Your task to perform on an android device: change notifications settings Image 0: 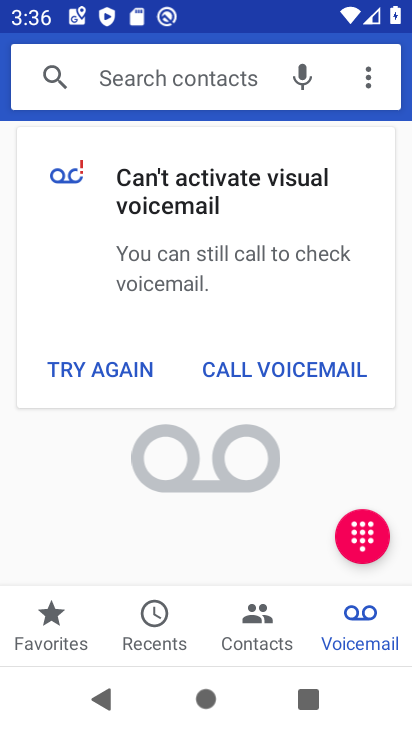
Step 0: press home button
Your task to perform on an android device: change notifications settings Image 1: 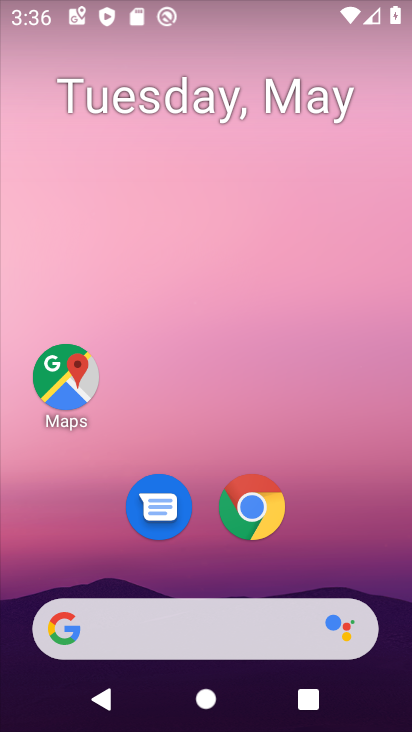
Step 1: drag from (205, 568) to (244, 95)
Your task to perform on an android device: change notifications settings Image 2: 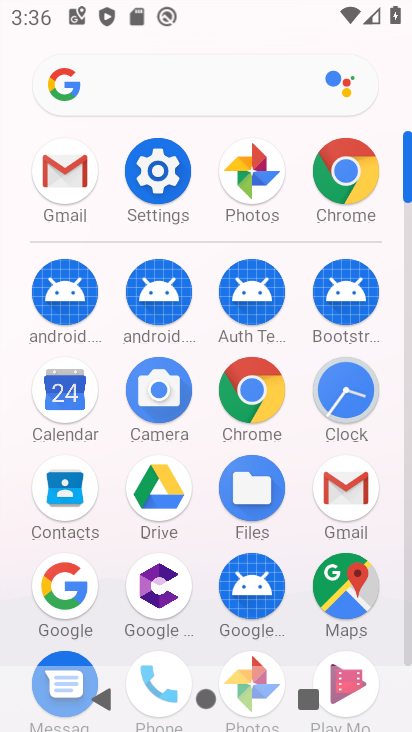
Step 2: click (159, 179)
Your task to perform on an android device: change notifications settings Image 3: 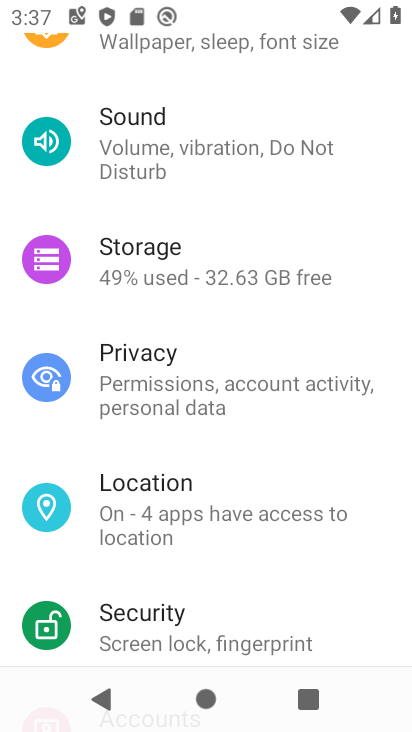
Step 3: drag from (198, 298) to (214, 552)
Your task to perform on an android device: change notifications settings Image 4: 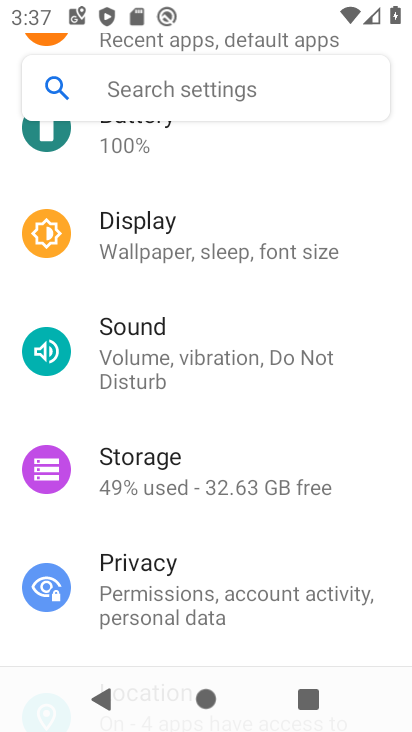
Step 4: drag from (223, 327) to (229, 604)
Your task to perform on an android device: change notifications settings Image 5: 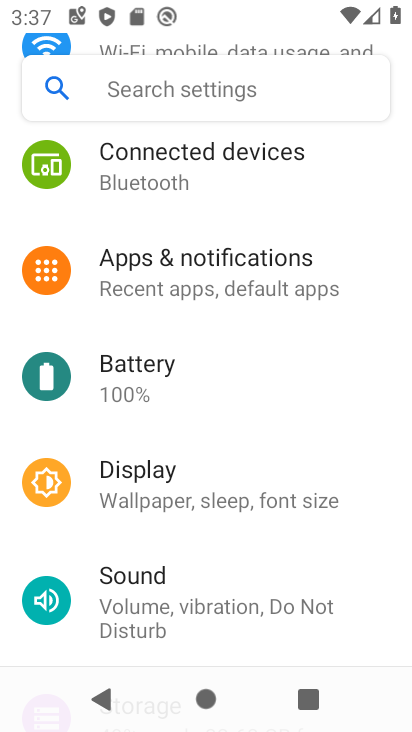
Step 5: click (223, 253)
Your task to perform on an android device: change notifications settings Image 6: 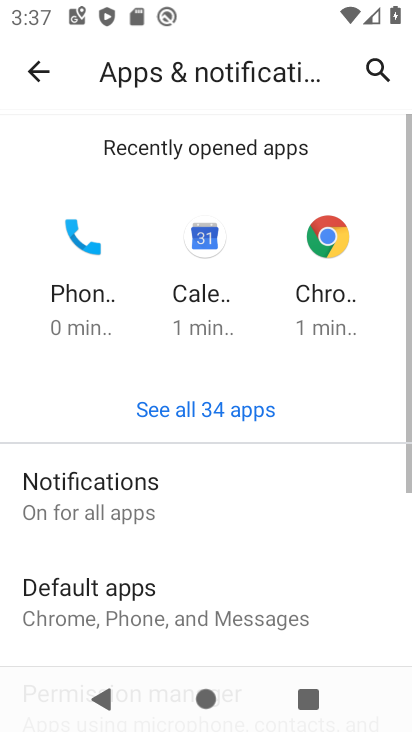
Step 6: click (173, 502)
Your task to perform on an android device: change notifications settings Image 7: 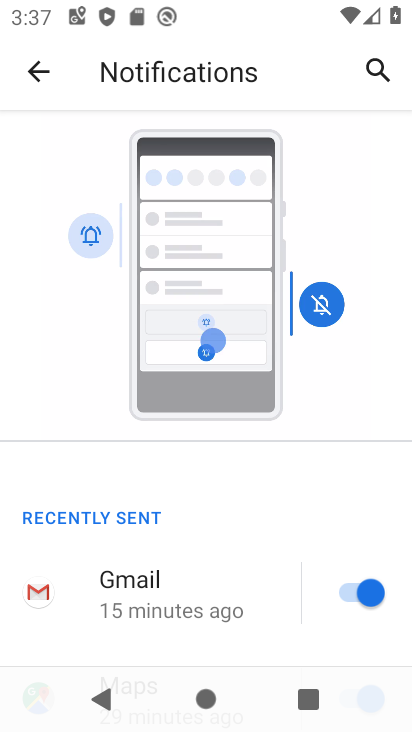
Step 7: drag from (172, 529) to (206, 223)
Your task to perform on an android device: change notifications settings Image 8: 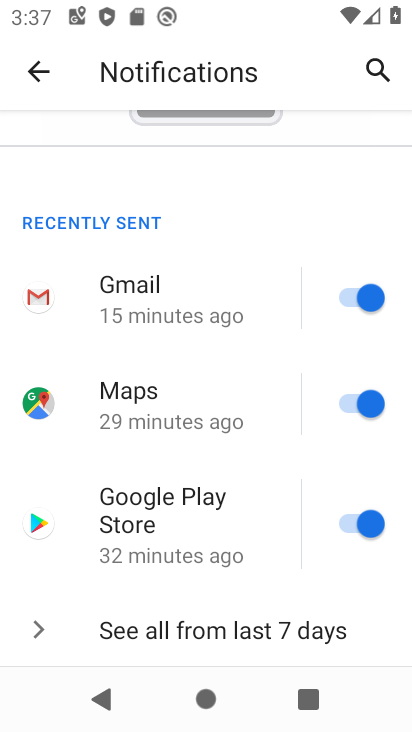
Step 8: drag from (192, 569) to (193, 422)
Your task to perform on an android device: change notifications settings Image 9: 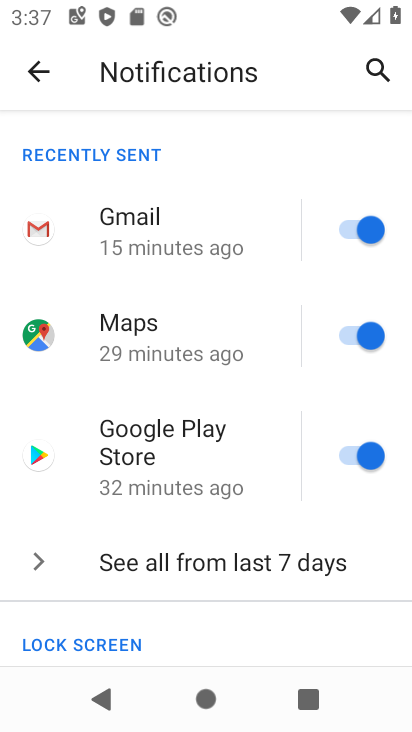
Step 9: click (167, 563)
Your task to perform on an android device: change notifications settings Image 10: 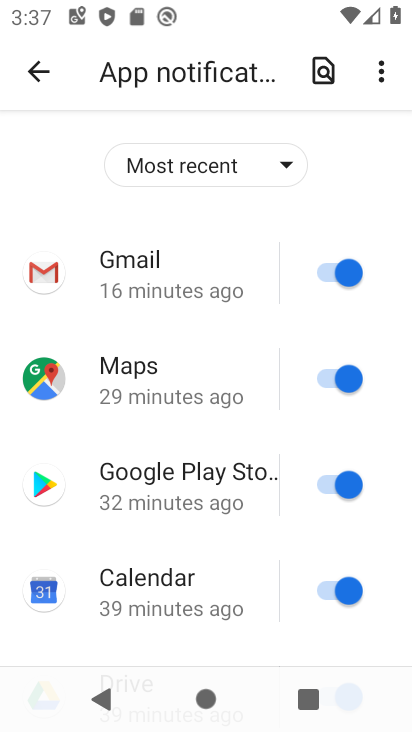
Step 10: click (337, 260)
Your task to perform on an android device: change notifications settings Image 11: 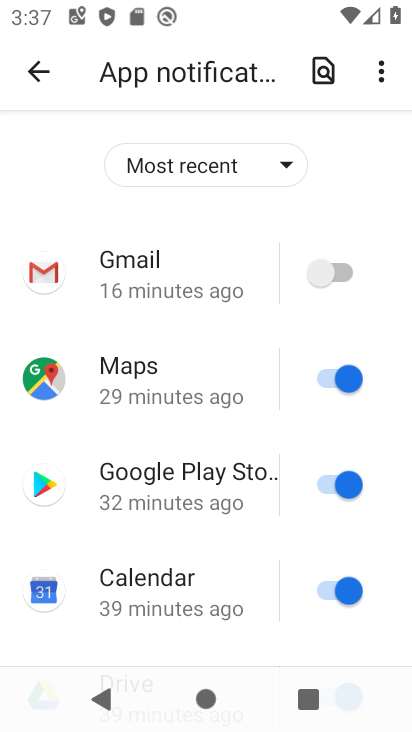
Step 11: click (338, 379)
Your task to perform on an android device: change notifications settings Image 12: 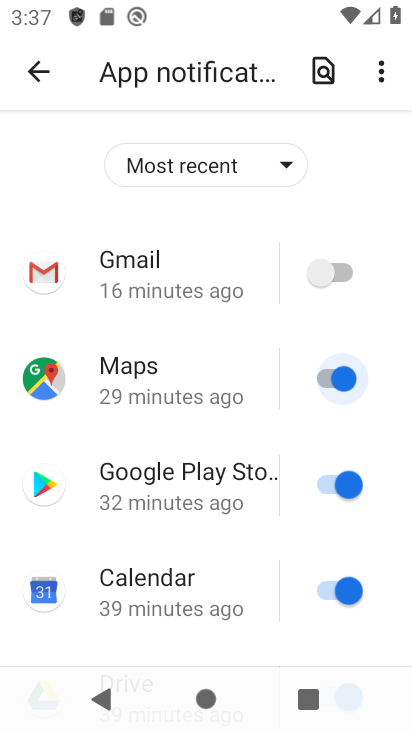
Step 12: click (324, 467)
Your task to perform on an android device: change notifications settings Image 13: 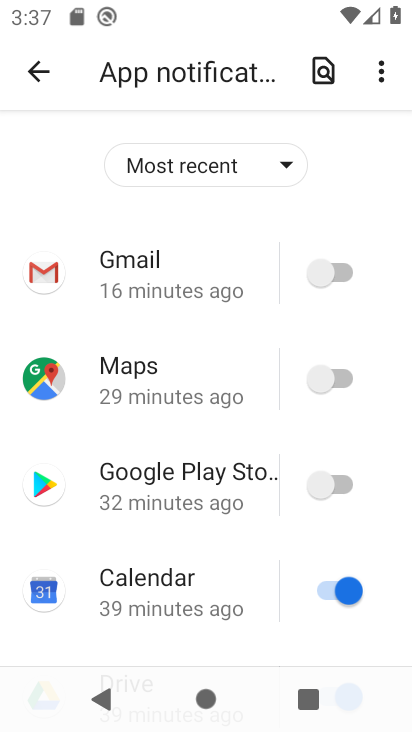
Step 13: click (318, 574)
Your task to perform on an android device: change notifications settings Image 14: 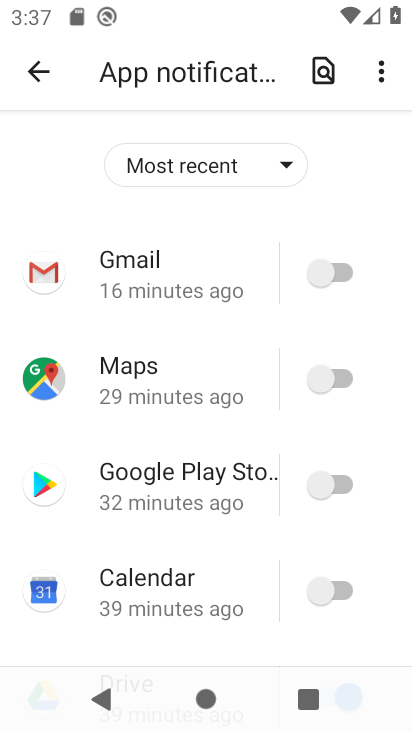
Step 14: drag from (150, 627) to (186, 144)
Your task to perform on an android device: change notifications settings Image 15: 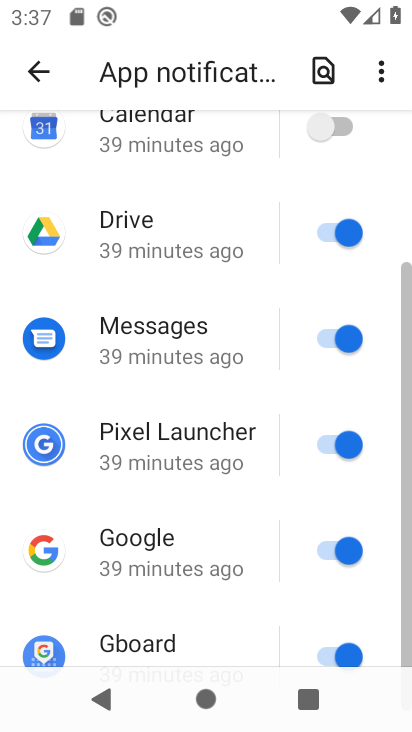
Step 15: click (344, 238)
Your task to perform on an android device: change notifications settings Image 16: 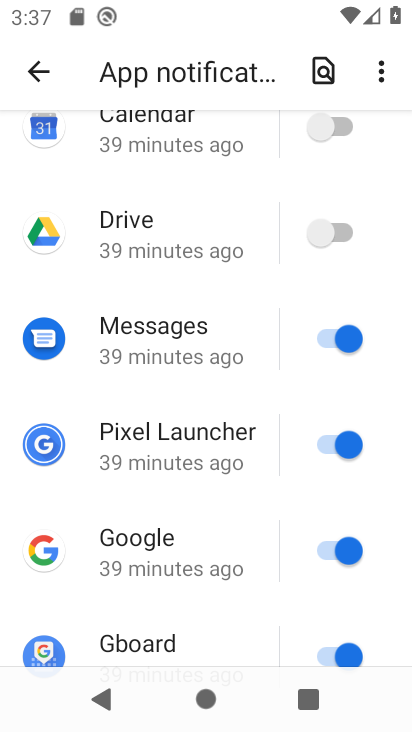
Step 16: click (357, 340)
Your task to perform on an android device: change notifications settings Image 17: 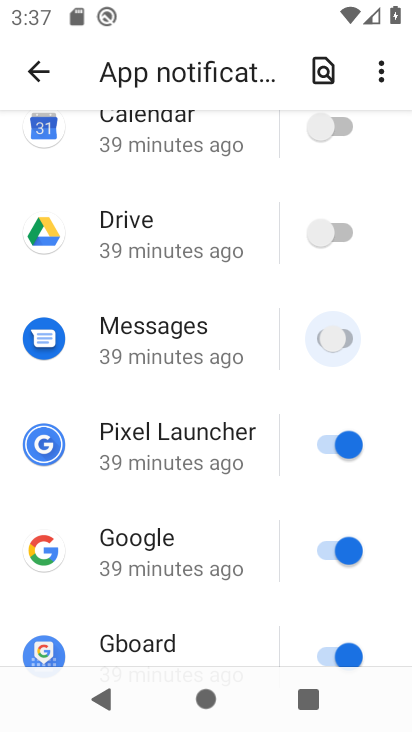
Step 17: click (323, 442)
Your task to perform on an android device: change notifications settings Image 18: 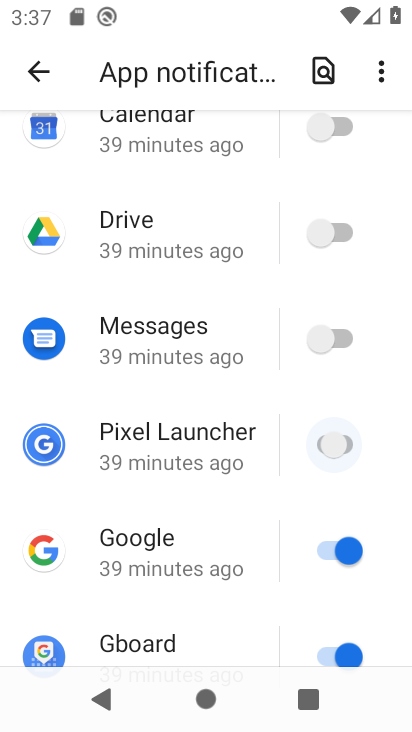
Step 18: click (333, 553)
Your task to perform on an android device: change notifications settings Image 19: 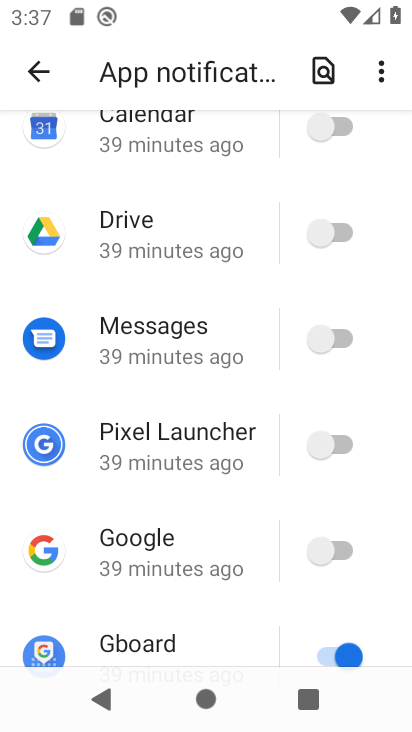
Step 19: click (323, 648)
Your task to perform on an android device: change notifications settings Image 20: 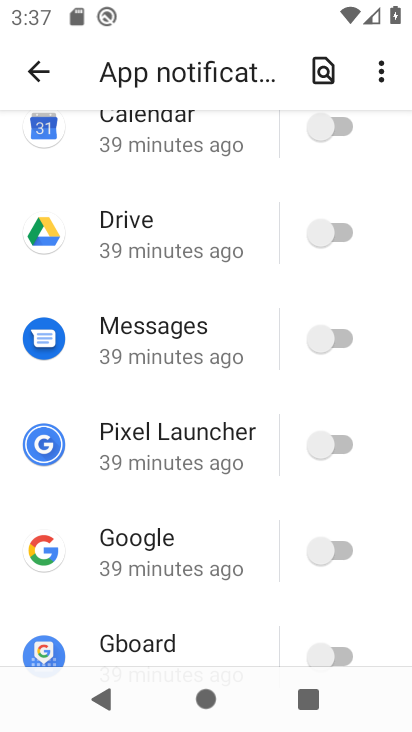
Step 20: drag from (196, 599) to (202, 189)
Your task to perform on an android device: change notifications settings Image 21: 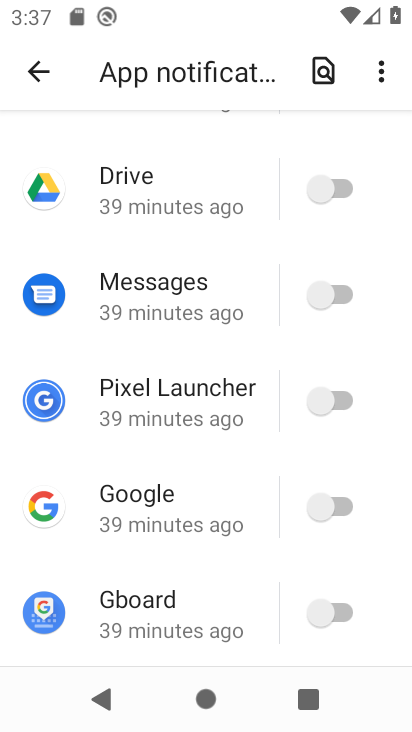
Step 21: click (51, 88)
Your task to perform on an android device: change notifications settings Image 22: 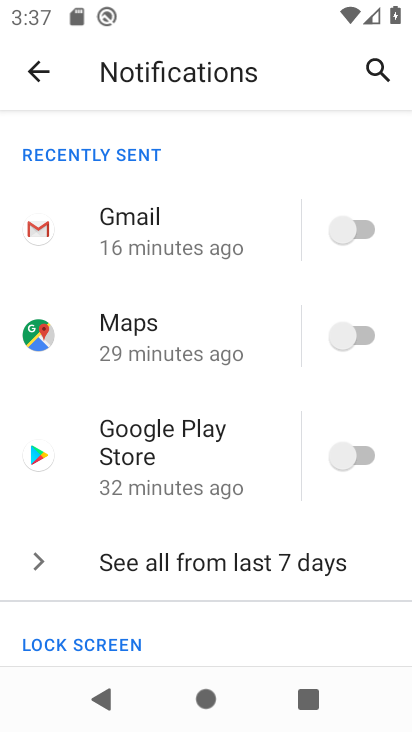
Step 22: drag from (163, 595) to (168, 191)
Your task to perform on an android device: change notifications settings Image 23: 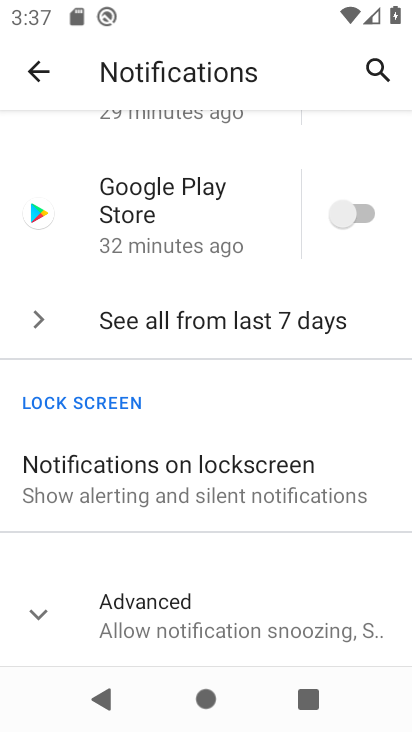
Step 23: click (169, 501)
Your task to perform on an android device: change notifications settings Image 24: 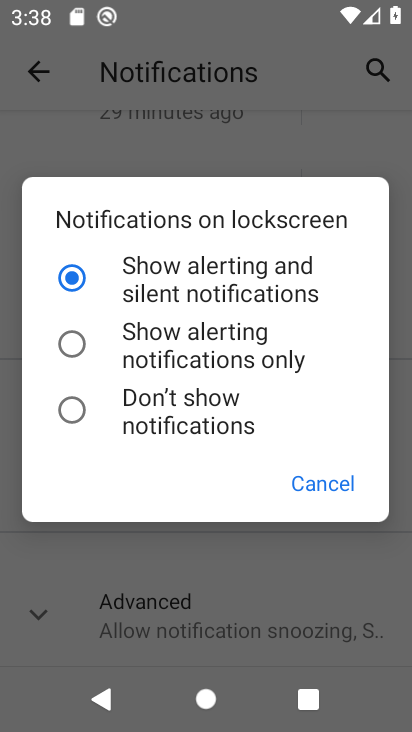
Step 24: click (144, 347)
Your task to perform on an android device: change notifications settings Image 25: 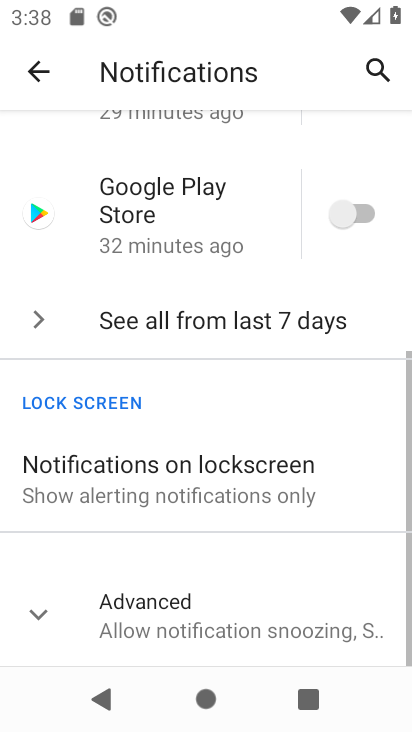
Step 25: drag from (198, 571) to (249, 280)
Your task to perform on an android device: change notifications settings Image 26: 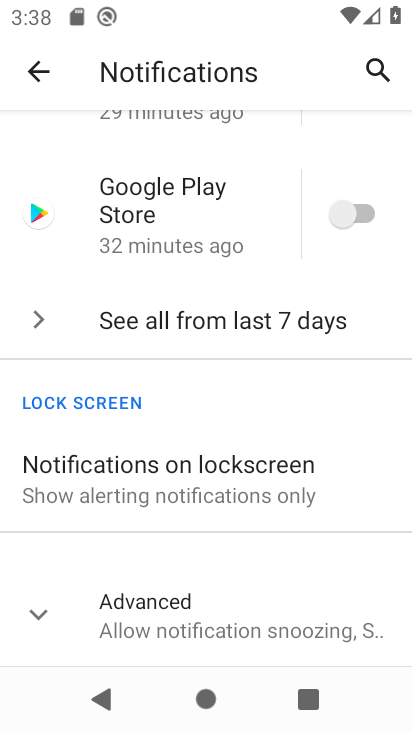
Step 26: click (176, 626)
Your task to perform on an android device: change notifications settings Image 27: 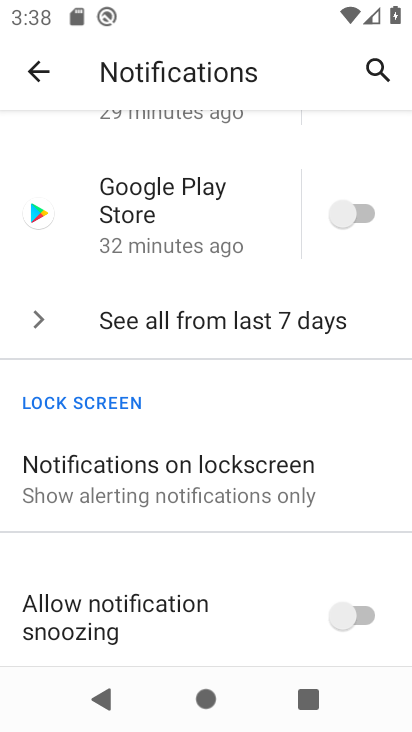
Step 27: drag from (158, 557) to (256, 129)
Your task to perform on an android device: change notifications settings Image 28: 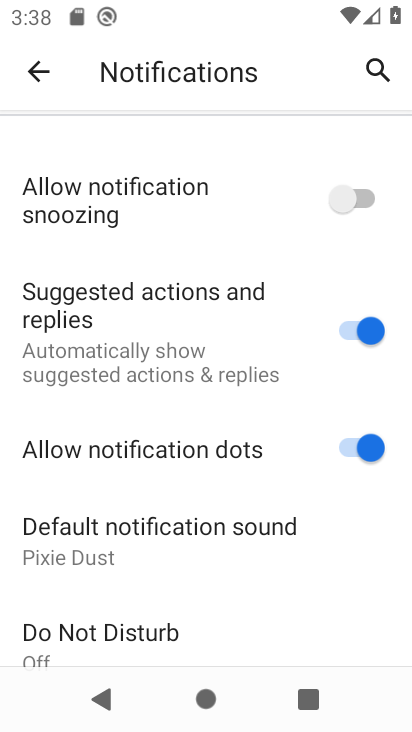
Step 28: click (359, 203)
Your task to perform on an android device: change notifications settings Image 29: 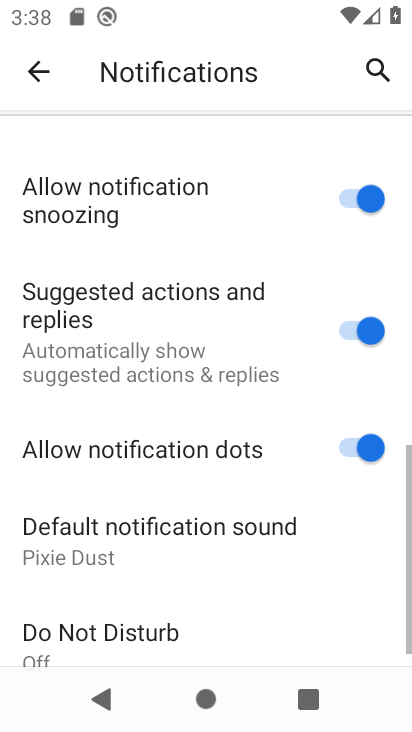
Step 29: click (362, 328)
Your task to perform on an android device: change notifications settings Image 30: 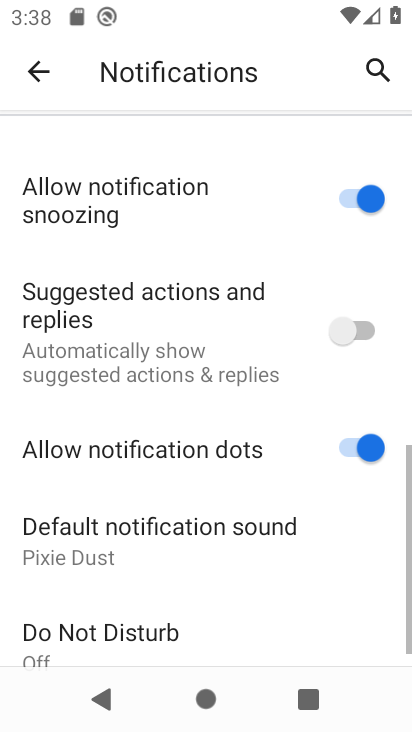
Step 30: click (364, 453)
Your task to perform on an android device: change notifications settings Image 31: 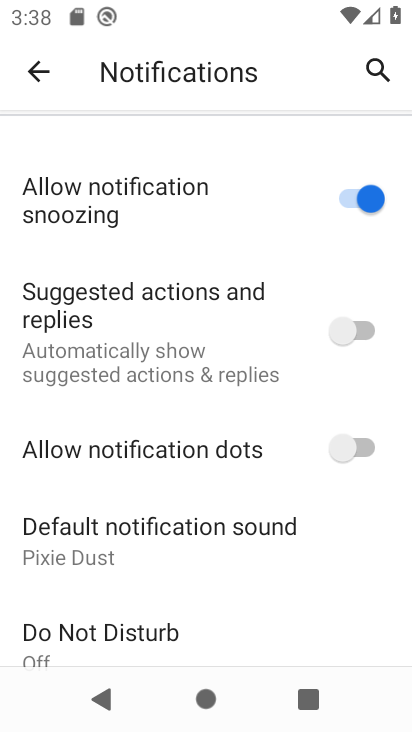
Step 31: task complete